Your task to perform on an android device: Check the latest toasters on Target. Image 0: 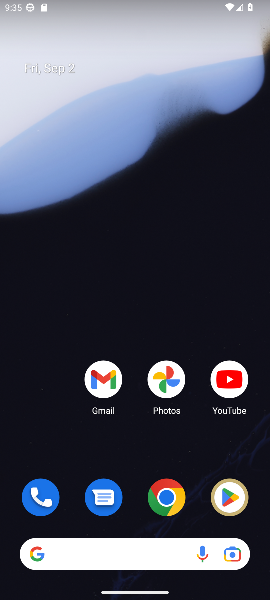
Step 0: click (152, 8)
Your task to perform on an android device: Check the latest toasters on Target. Image 1: 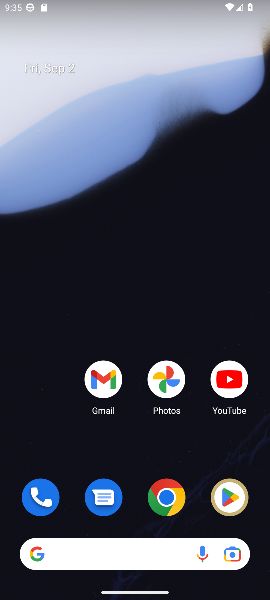
Step 1: drag from (134, 523) to (132, 184)
Your task to perform on an android device: Check the latest toasters on Target. Image 2: 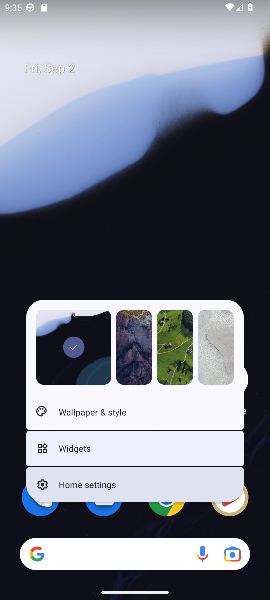
Step 2: click (135, 521)
Your task to perform on an android device: Check the latest toasters on Target. Image 3: 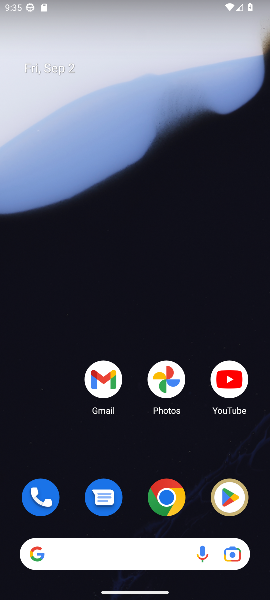
Step 3: drag from (135, 521) to (123, 39)
Your task to perform on an android device: Check the latest toasters on Target. Image 4: 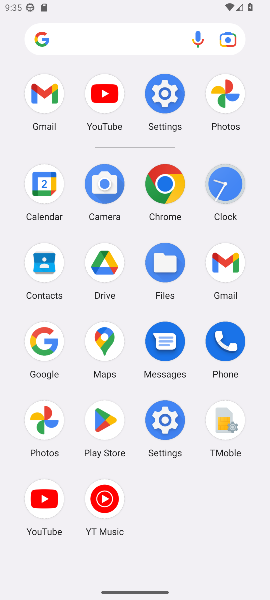
Step 4: click (45, 342)
Your task to perform on an android device: Check the latest toasters on Target. Image 5: 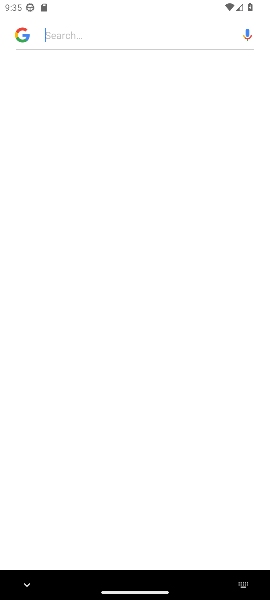
Step 5: click (102, 32)
Your task to perform on an android device: Check the latest toasters on Target. Image 6: 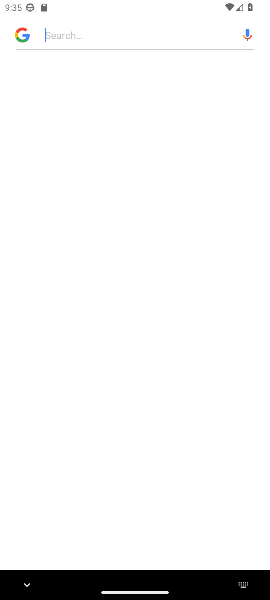
Step 6: type "the latest toasters on Target."
Your task to perform on an android device: Check the latest toasters on Target. Image 7: 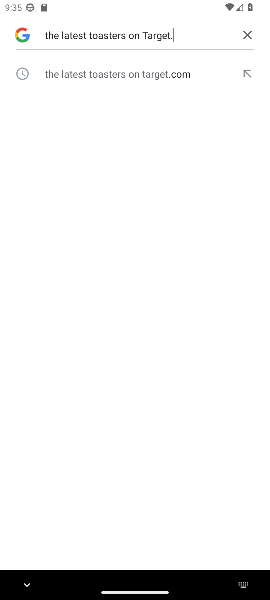
Step 7: click (147, 77)
Your task to perform on an android device: Check the latest toasters on Target. Image 8: 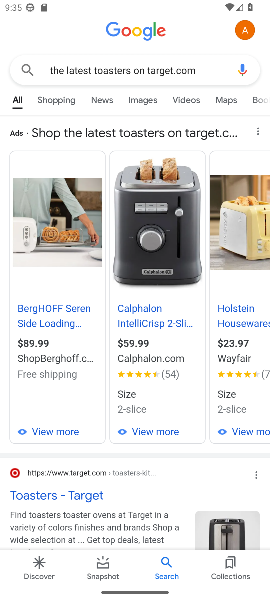
Step 8: task complete